Your task to perform on an android device: What's the news in Singapore? Image 0: 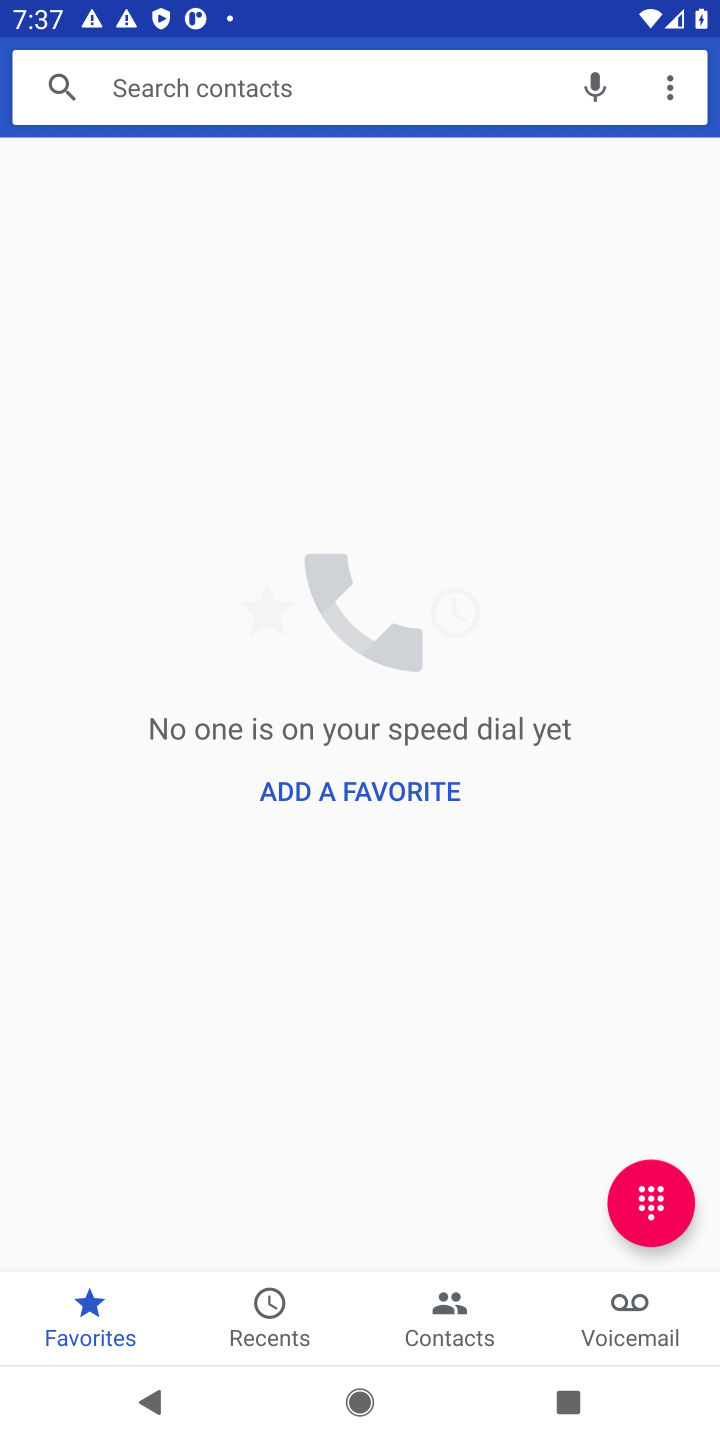
Step 0: press home button
Your task to perform on an android device: What's the news in Singapore? Image 1: 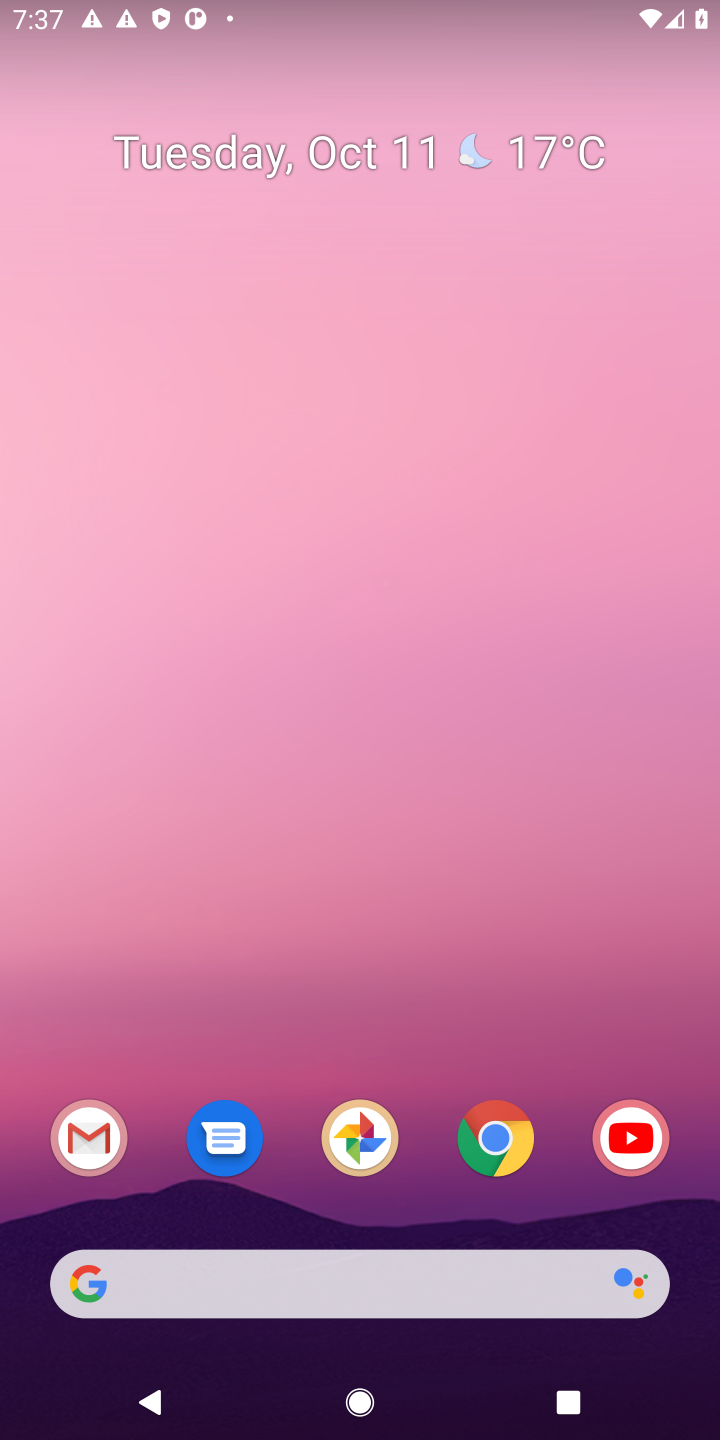
Step 1: click (327, 1296)
Your task to perform on an android device: What's the news in Singapore? Image 2: 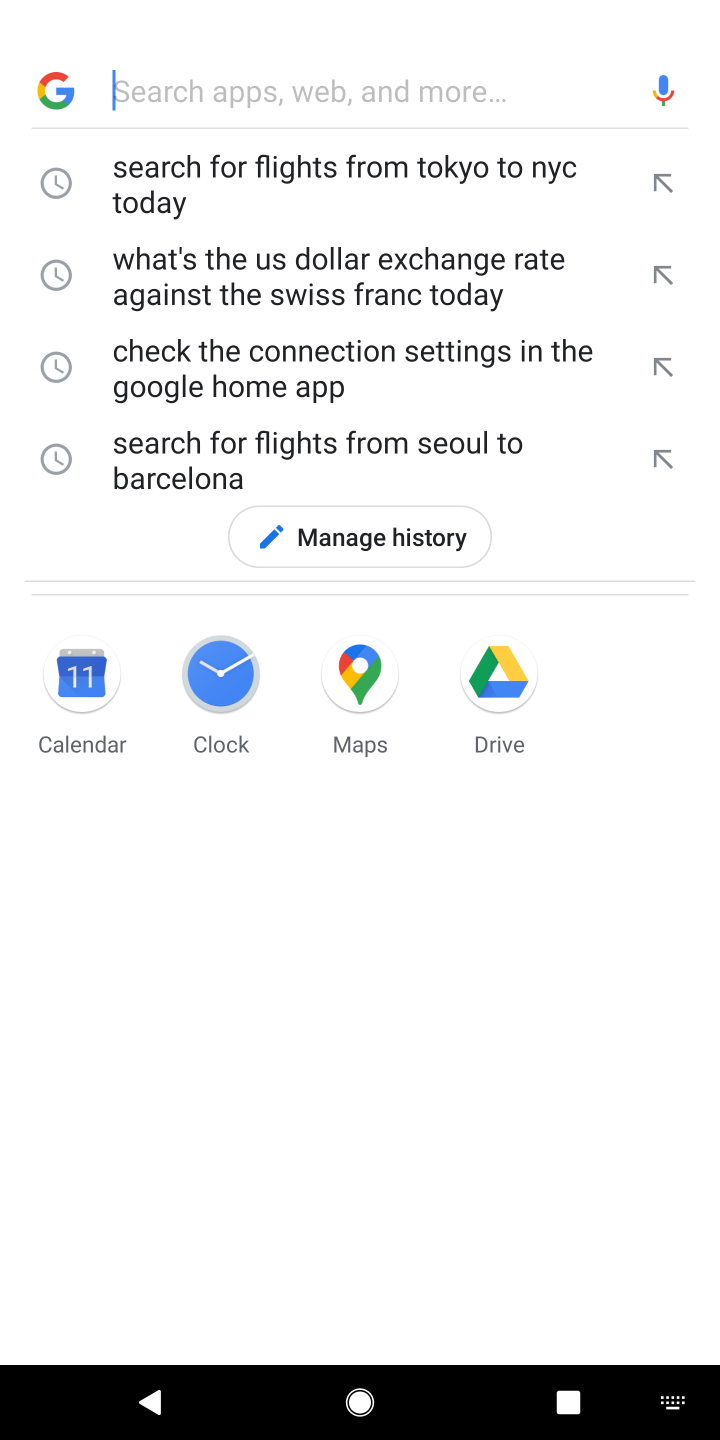
Step 2: type "What's the news in Singapore?"
Your task to perform on an android device: What's the news in Singapore? Image 3: 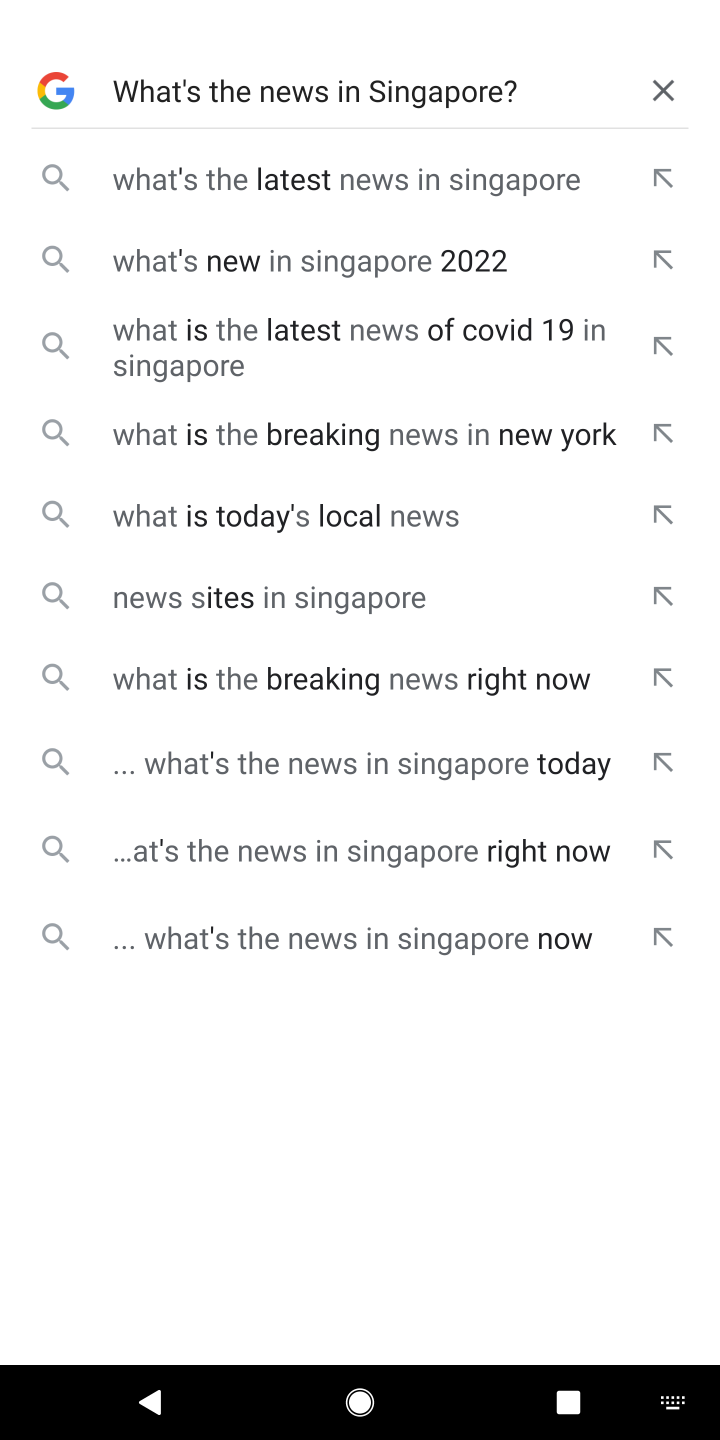
Step 3: click (330, 180)
Your task to perform on an android device: What's the news in Singapore? Image 4: 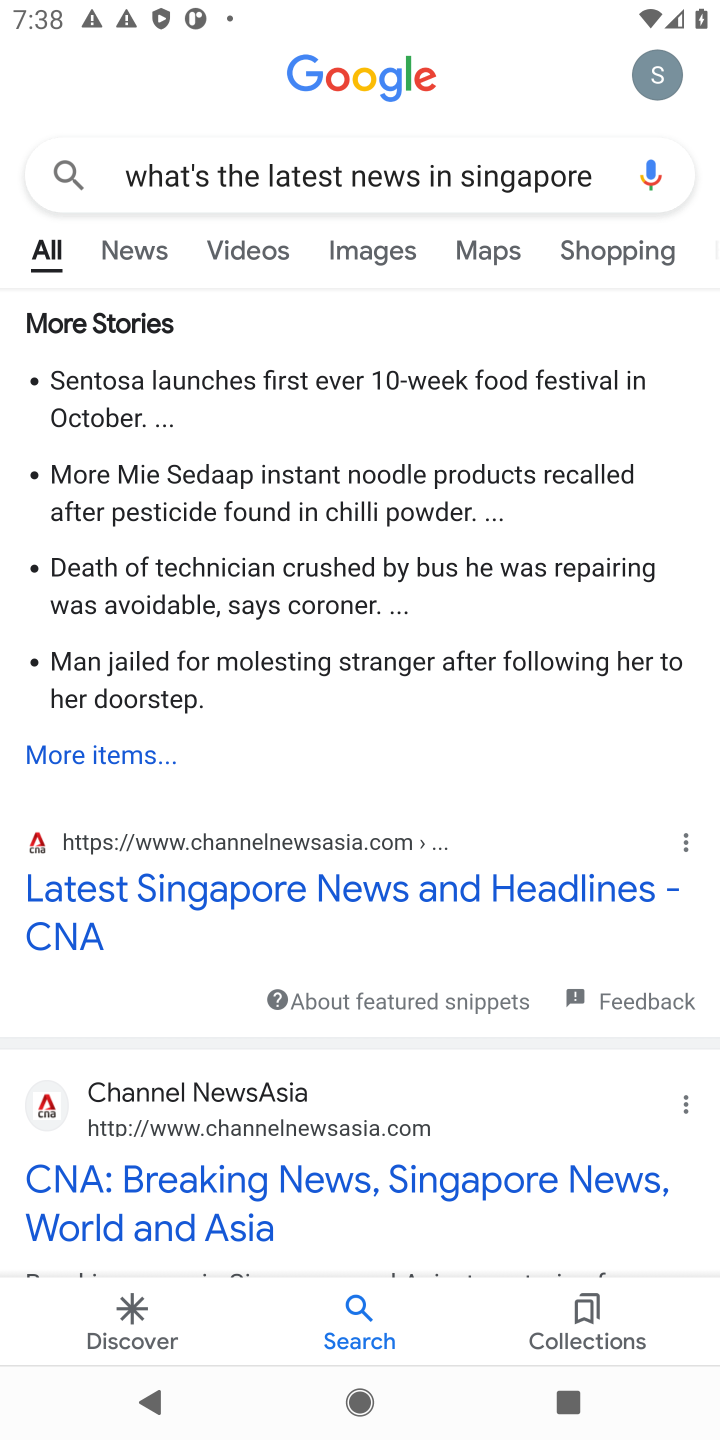
Step 4: click (266, 885)
Your task to perform on an android device: What's the news in Singapore? Image 5: 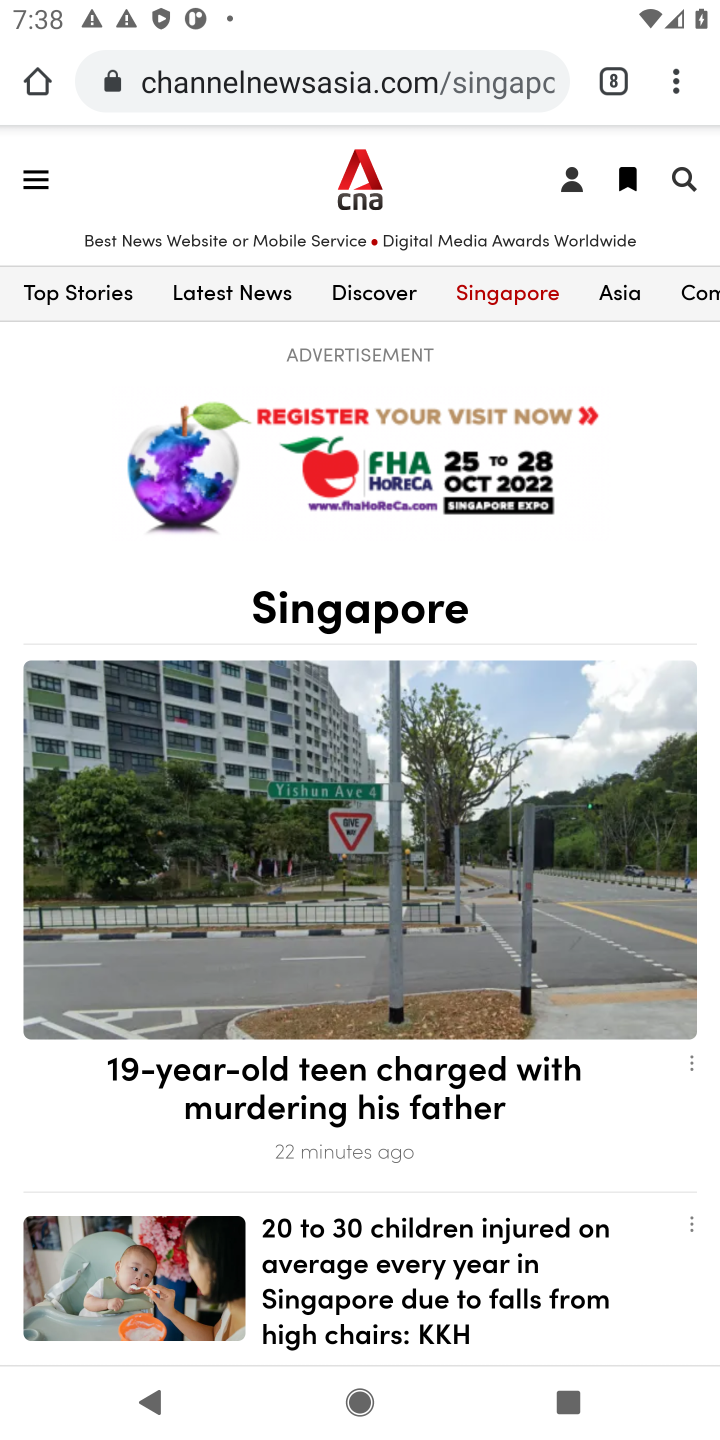
Step 5: drag from (642, 1280) to (542, 840)
Your task to perform on an android device: What's the news in Singapore? Image 6: 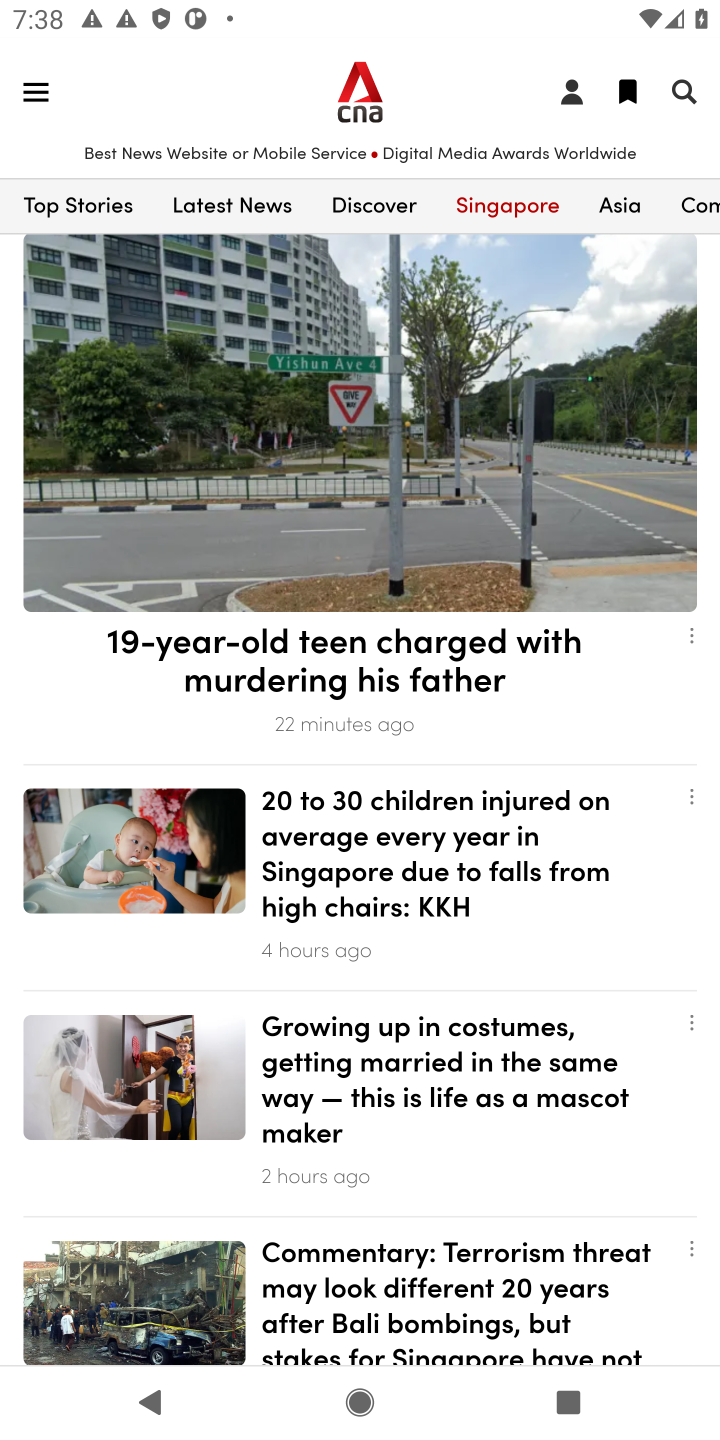
Step 6: drag from (576, 1169) to (515, 801)
Your task to perform on an android device: What's the news in Singapore? Image 7: 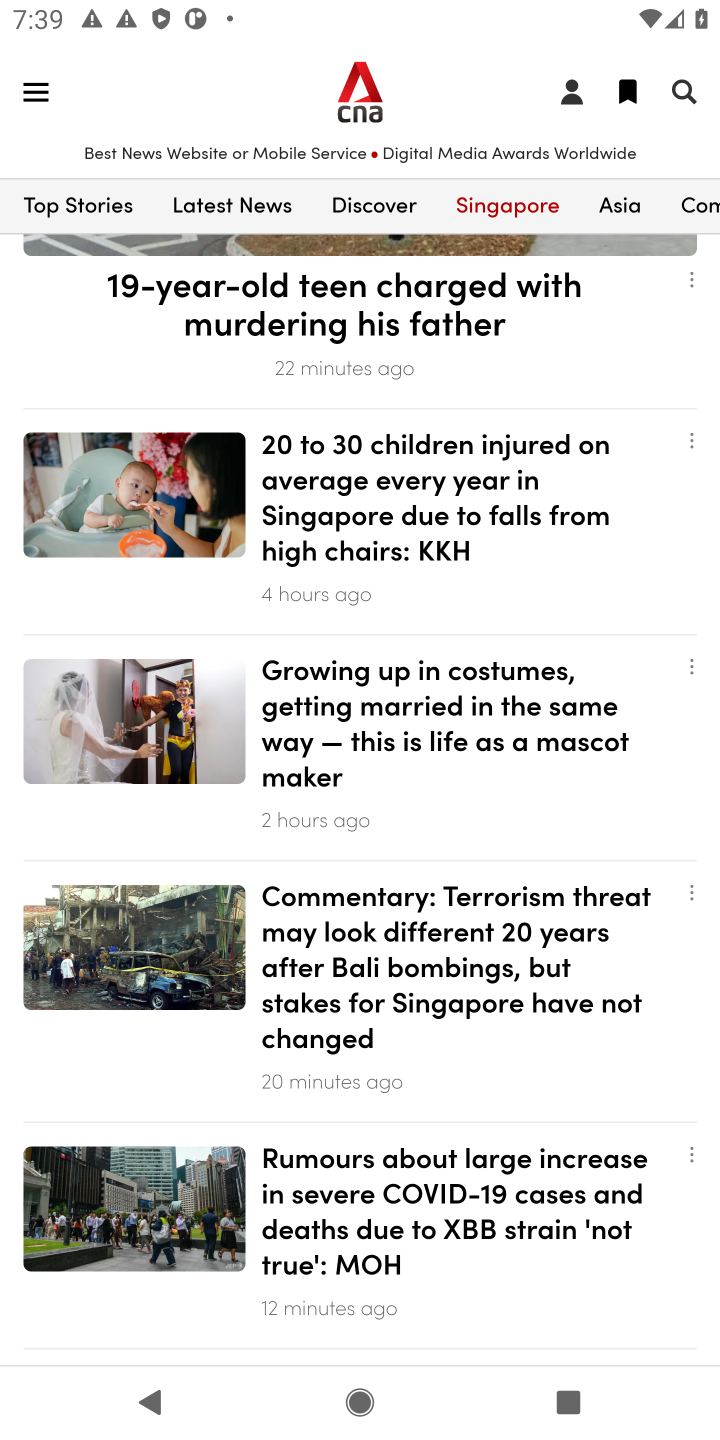
Step 7: click (253, 264)
Your task to perform on an android device: What's the news in Singapore? Image 8: 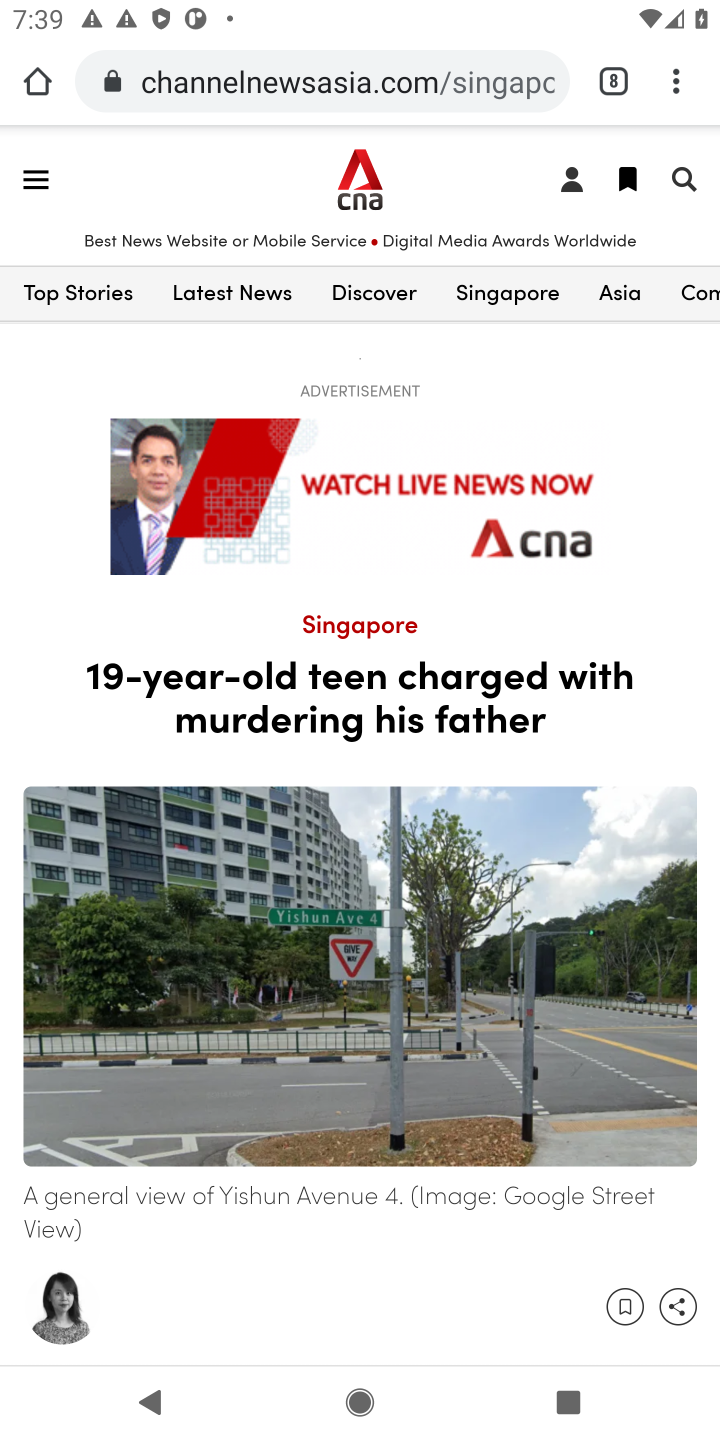
Step 8: task complete